Your task to perform on an android device: change the clock display to analog Image 0: 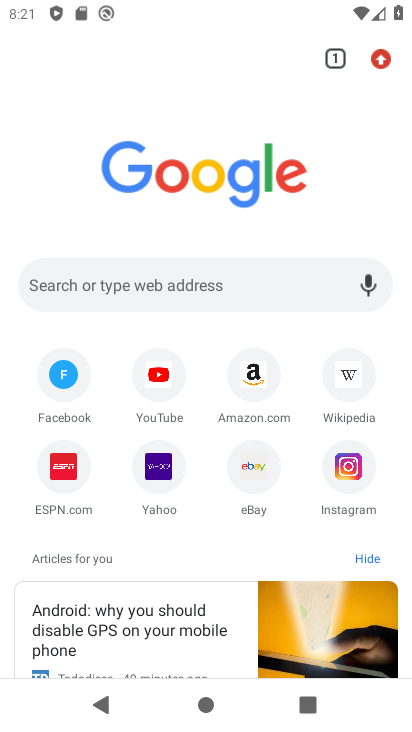
Step 0: press home button
Your task to perform on an android device: change the clock display to analog Image 1: 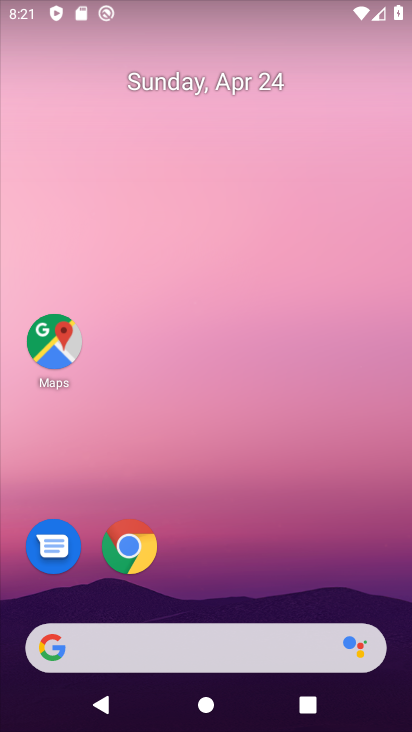
Step 1: drag from (256, 598) to (242, 158)
Your task to perform on an android device: change the clock display to analog Image 2: 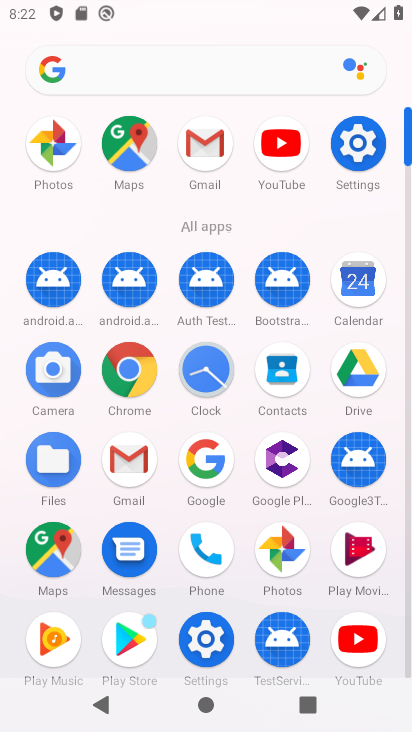
Step 2: click (210, 374)
Your task to perform on an android device: change the clock display to analog Image 3: 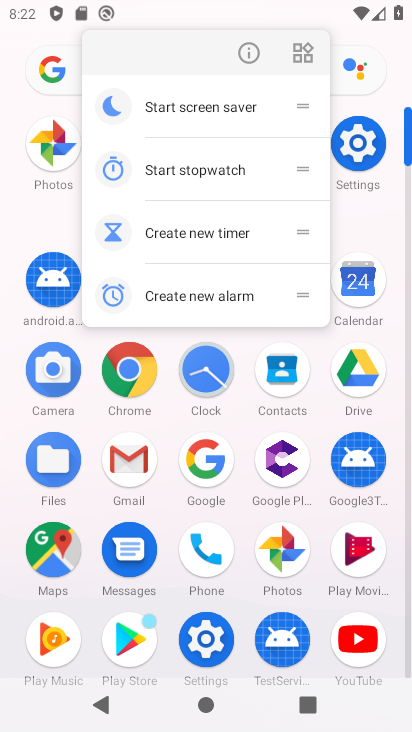
Step 3: click (226, 360)
Your task to perform on an android device: change the clock display to analog Image 4: 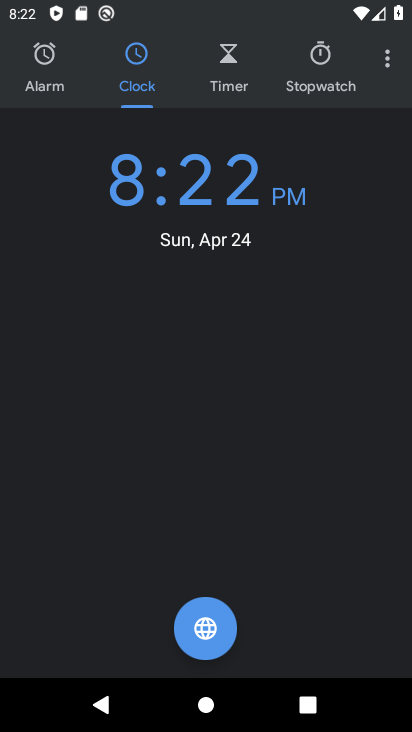
Step 4: click (382, 60)
Your task to perform on an android device: change the clock display to analog Image 5: 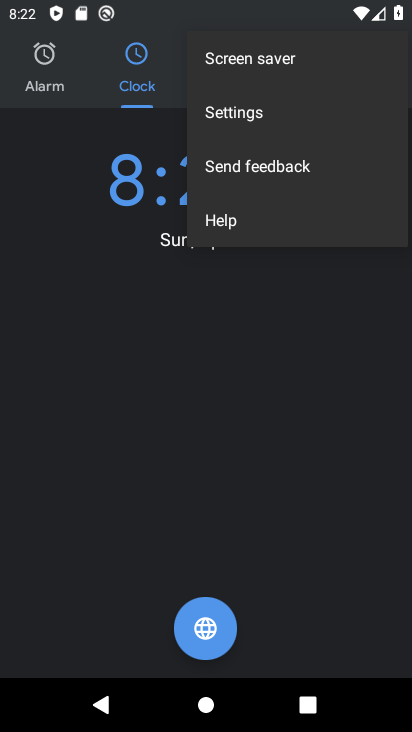
Step 5: click (261, 128)
Your task to perform on an android device: change the clock display to analog Image 6: 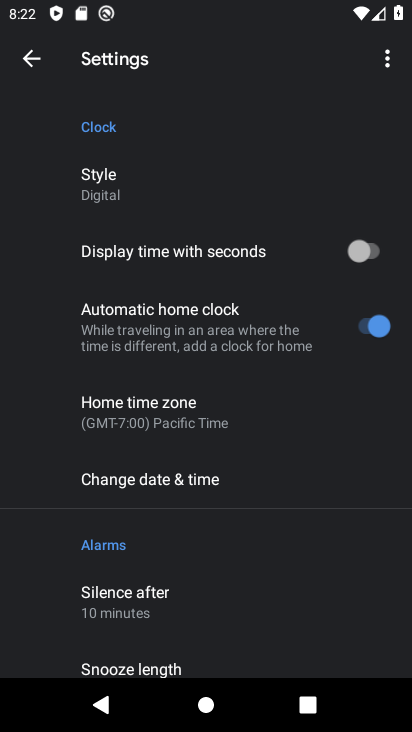
Step 6: click (188, 198)
Your task to perform on an android device: change the clock display to analog Image 7: 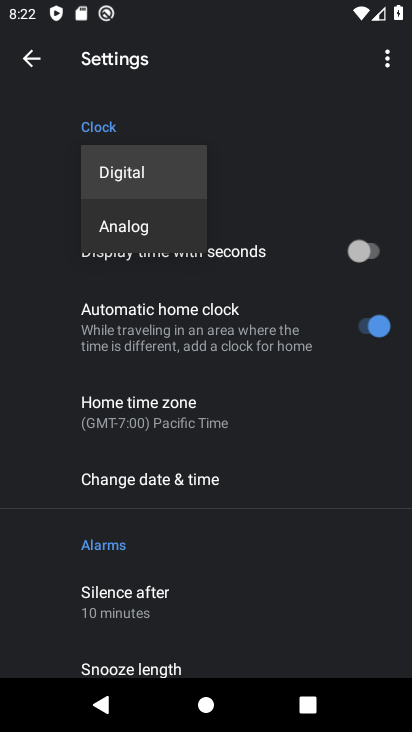
Step 7: click (135, 222)
Your task to perform on an android device: change the clock display to analog Image 8: 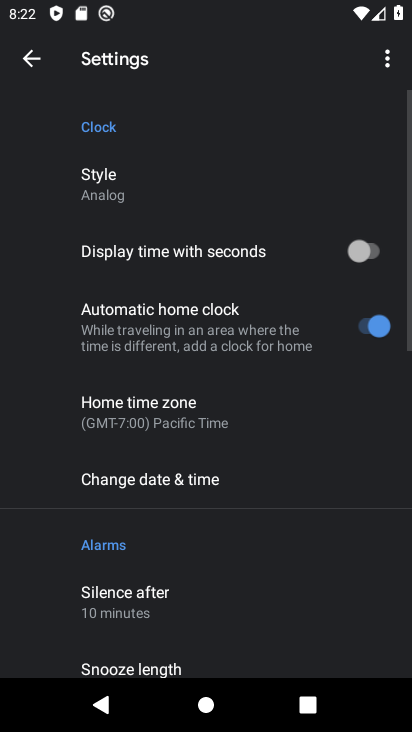
Step 8: task complete